Your task to perform on an android device: Open my contact list Image 0: 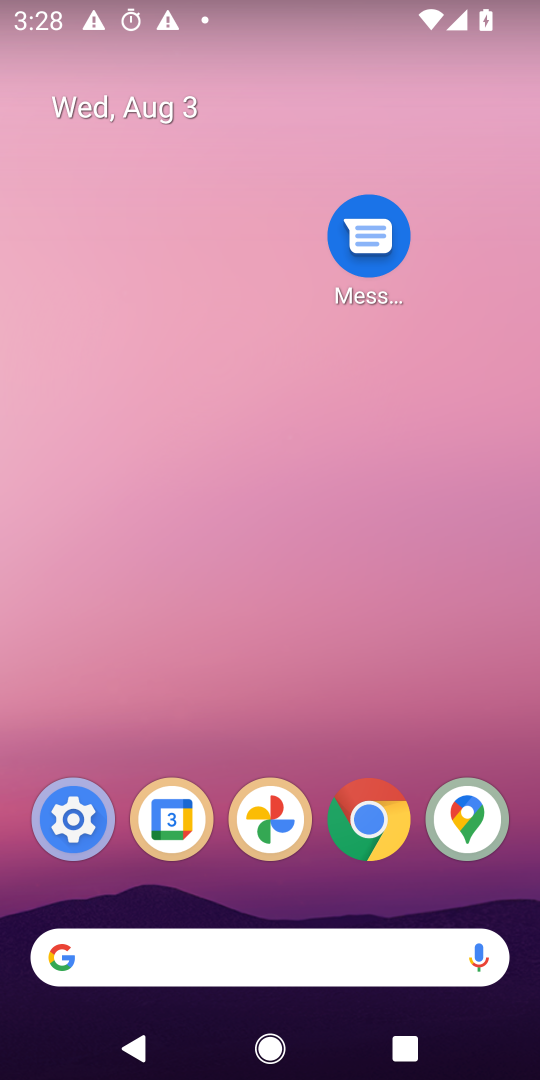
Step 0: drag from (273, 732) to (401, 98)
Your task to perform on an android device: Open my contact list Image 1: 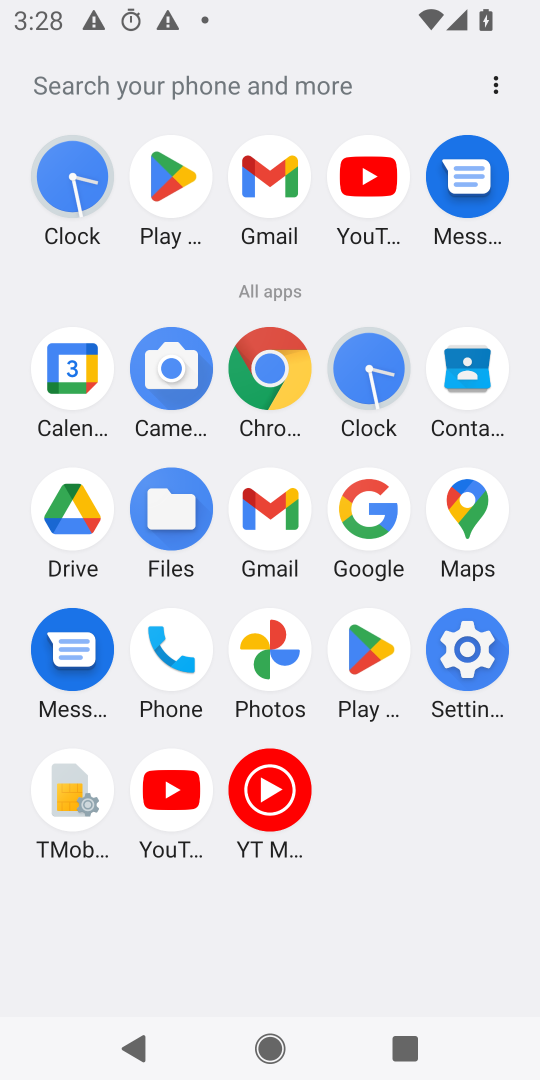
Step 1: click (467, 382)
Your task to perform on an android device: Open my contact list Image 2: 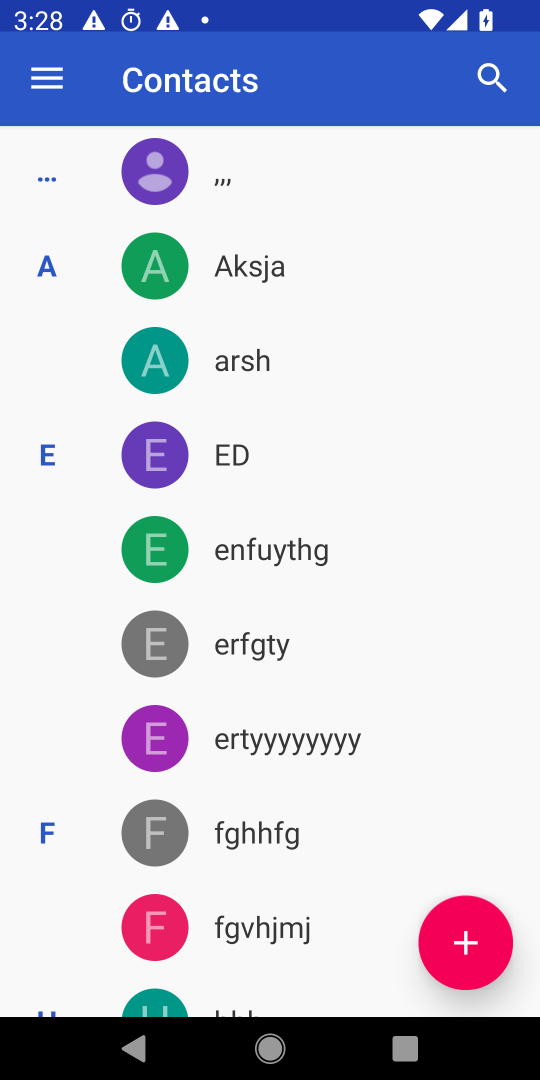
Step 2: task complete